Your task to perform on an android device: What is the recent news? Image 0: 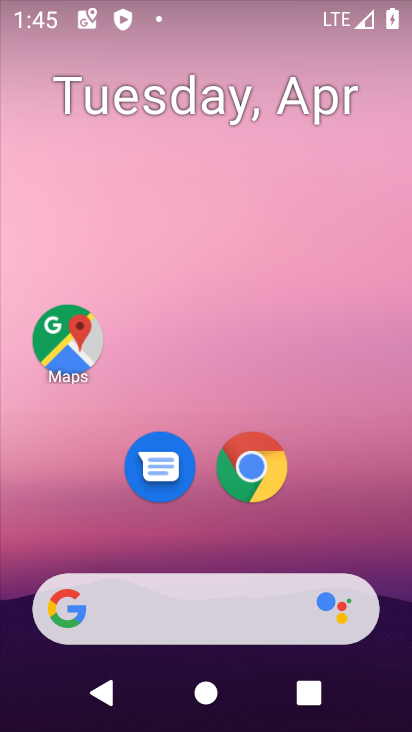
Step 0: drag from (75, 260) to (407, 361)
Your task to perform on an android device: What is the recent news? Image 1: 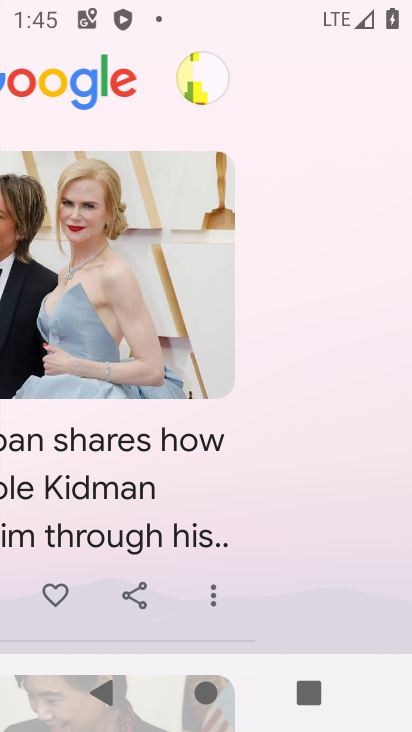
Step 1: task complete